Your task to perform on an android device: Search for 3d printer on AliExpress Image 0: 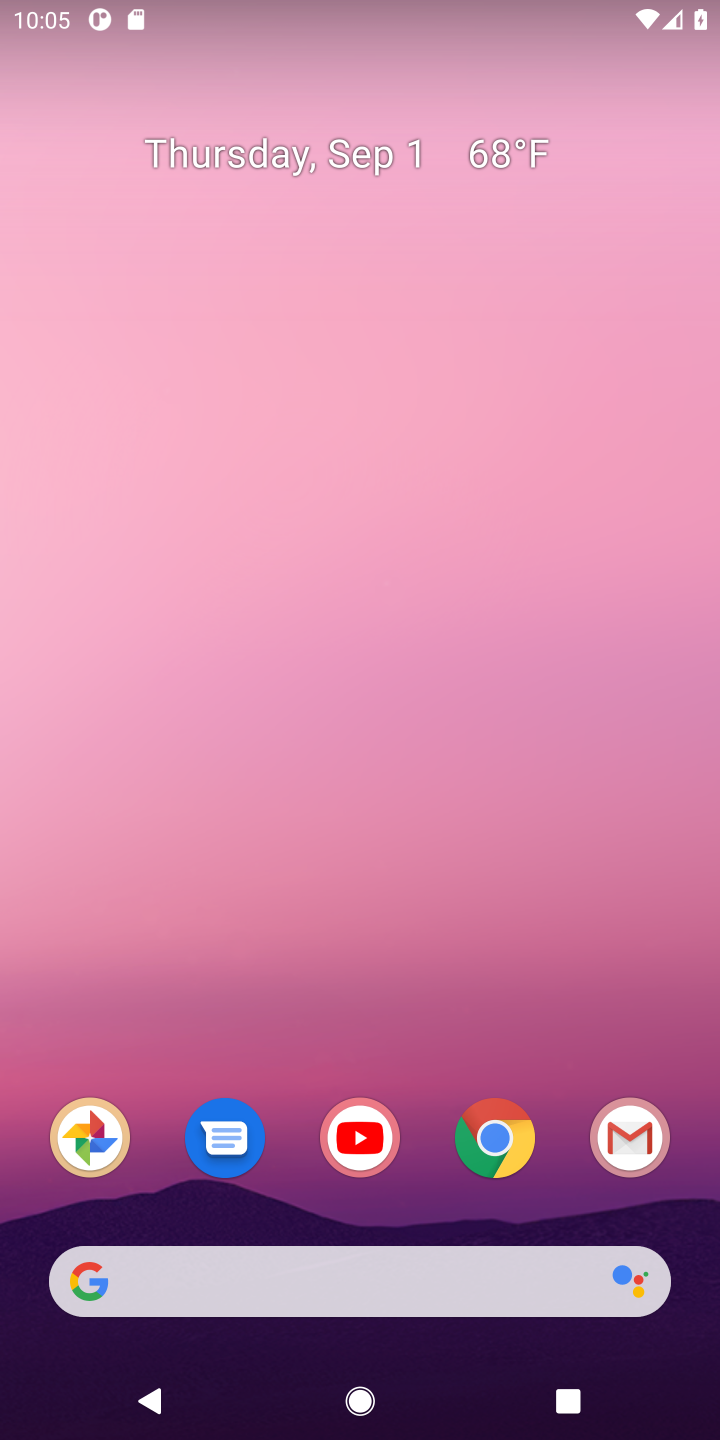
Step 0: click (469, 1164)
Your task to perform on an android device: Search for 3d printer on AliExpress Image 1: 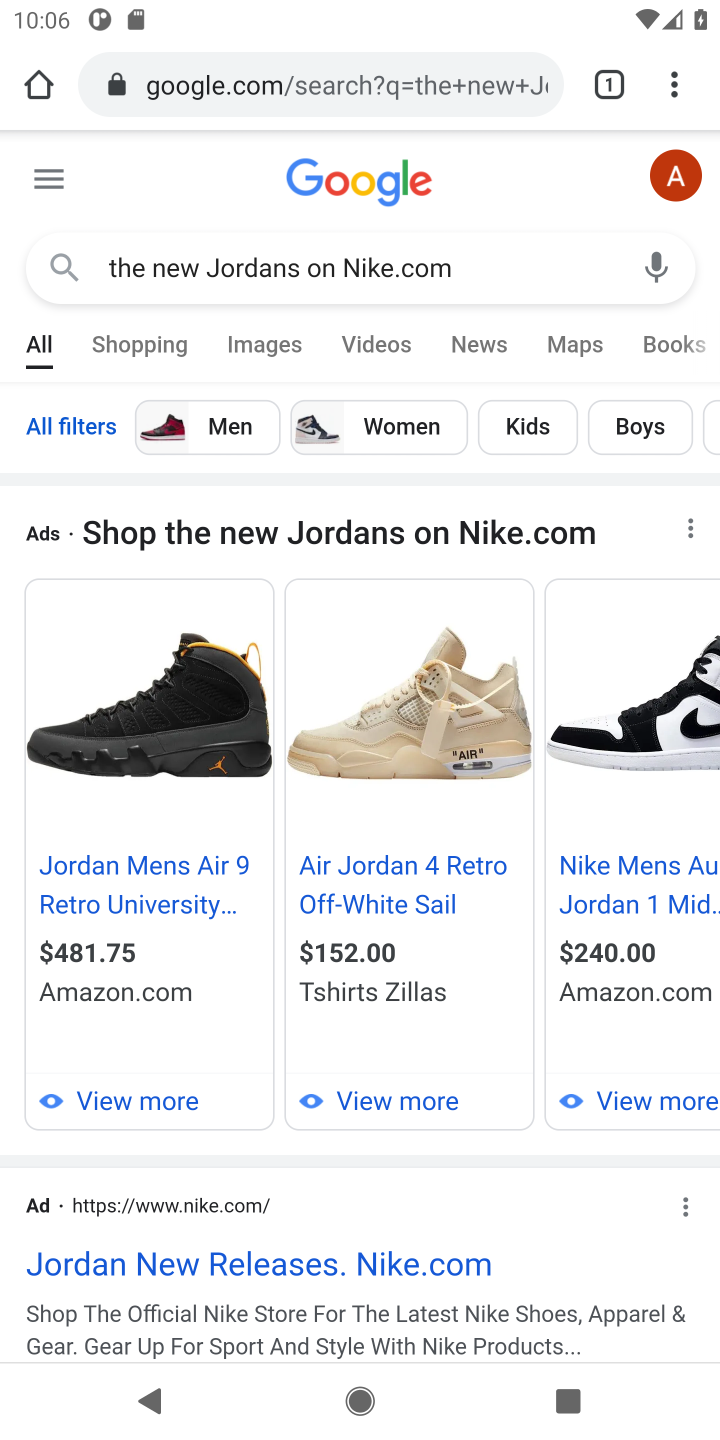
Step 1: click (432, 93)
Your task to perform on an android device: Search for 3d printer on AliExpress Image 2: 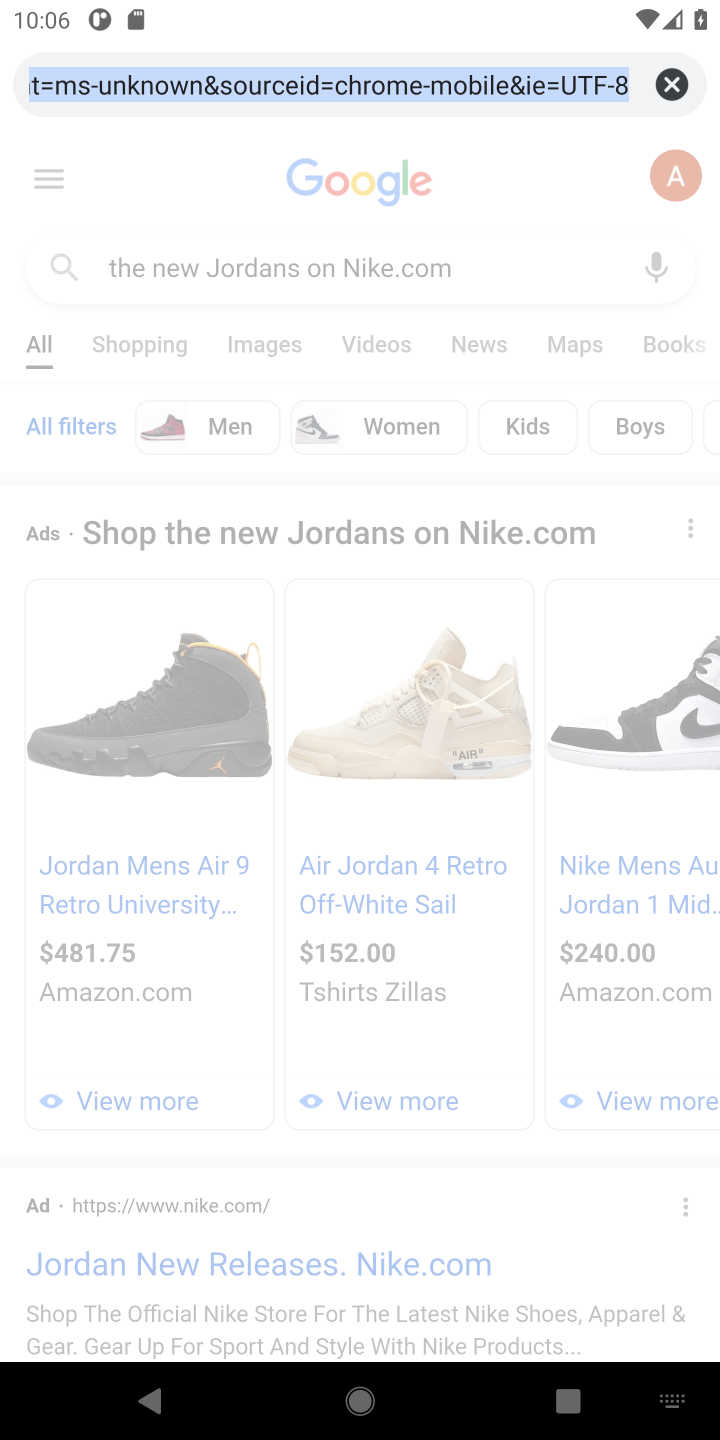
Step 2: click (685, 79)
Your task to perform on an android device: Search for 3d printer on AliExpress Image 3: 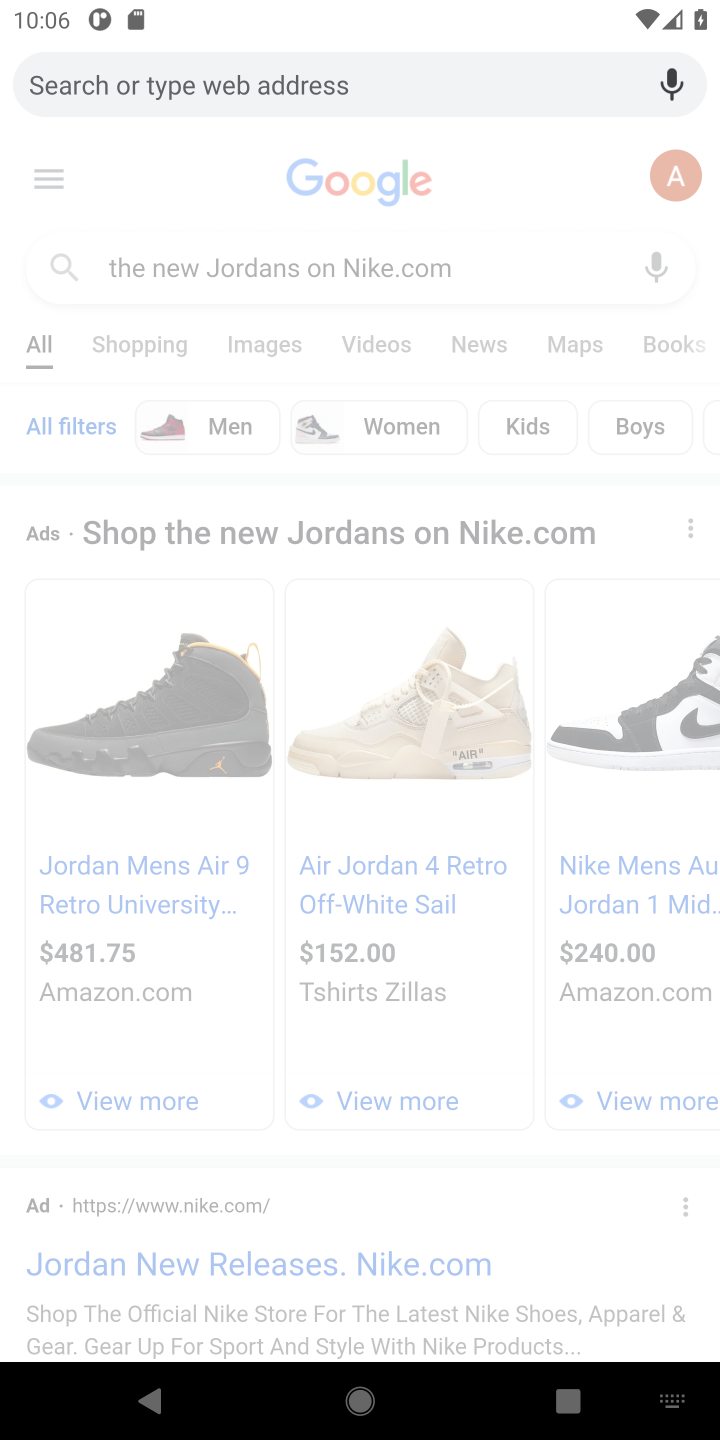
Step 3: type " 3d printer on AliExpress"
Your task to perform on an android device: Search for 3d printer on AliExpress Image 4: 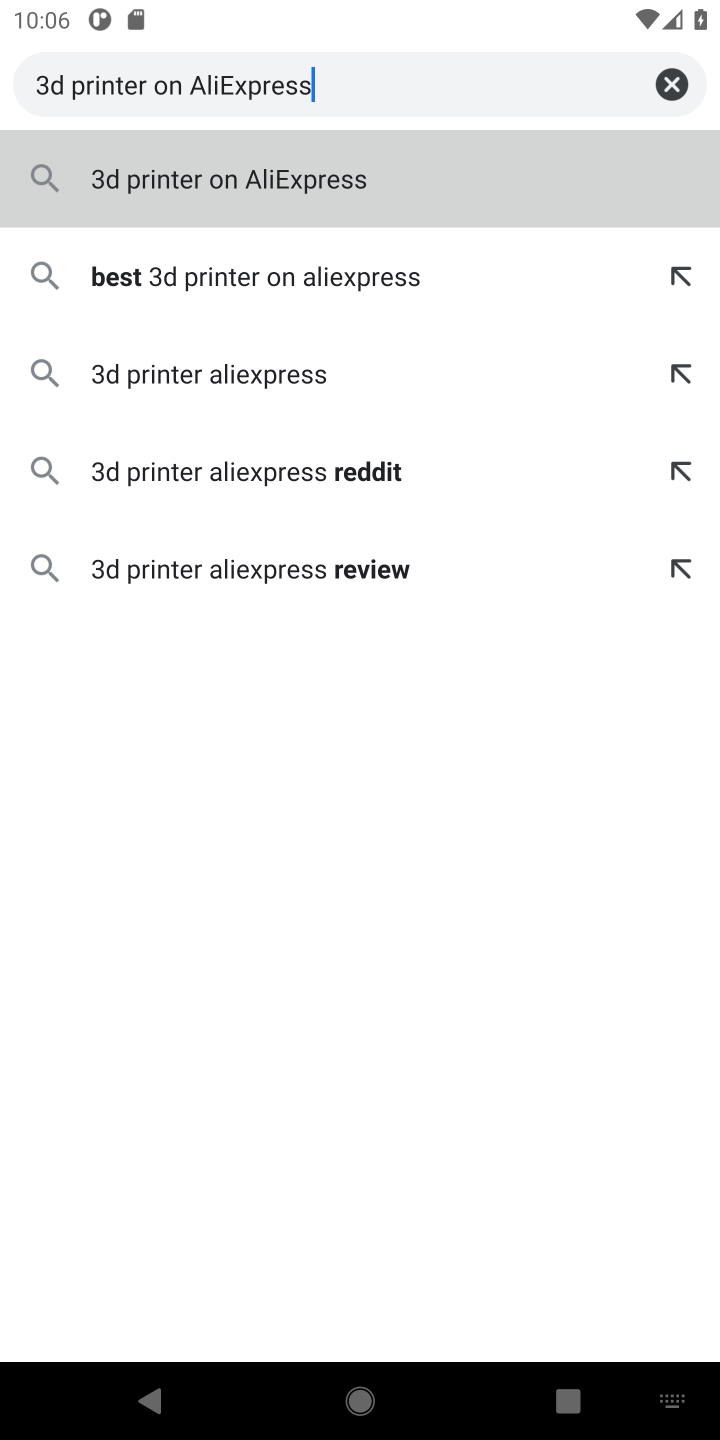
Step 4: click (263, 201)
Your task to perform on an android device: Search for 3d printer on AliExpress Image 5: 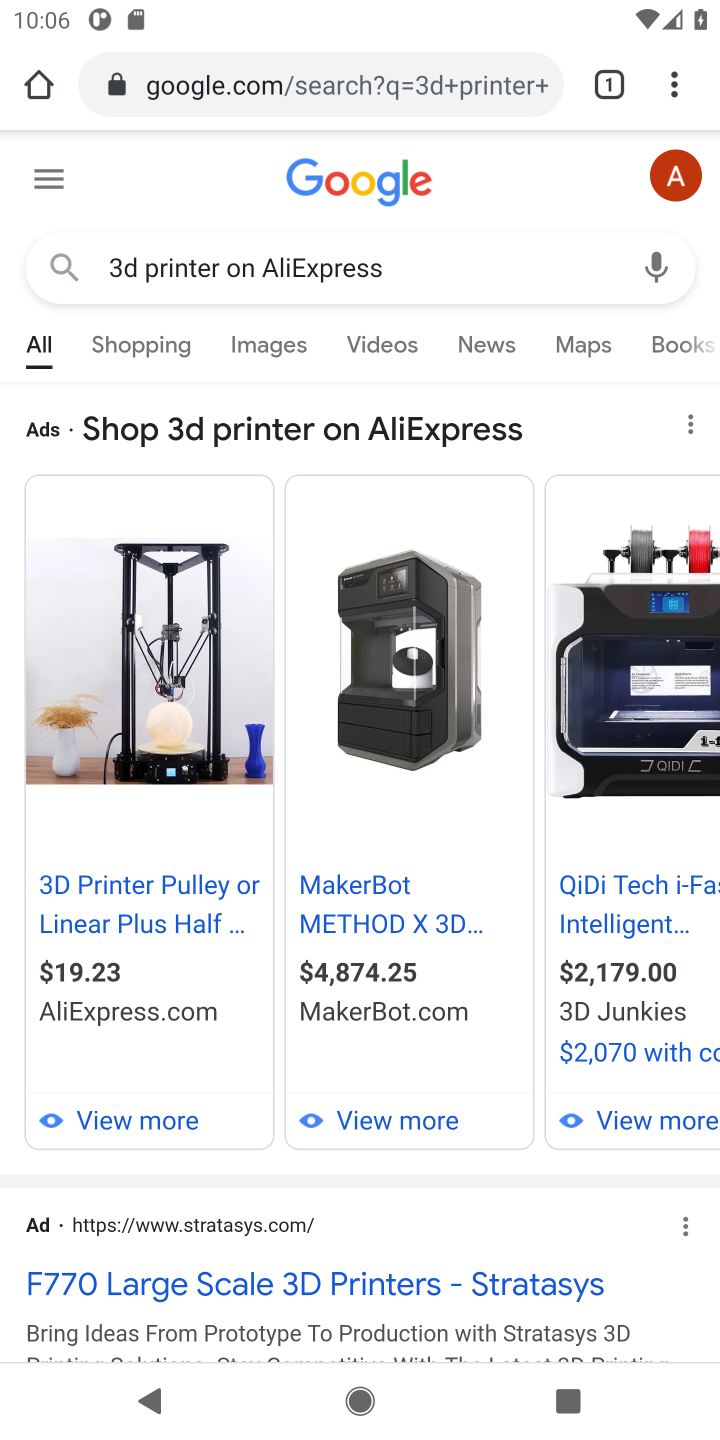
Step 5: task complete